Your task to perform on an android device: What is the news today? Image 0: 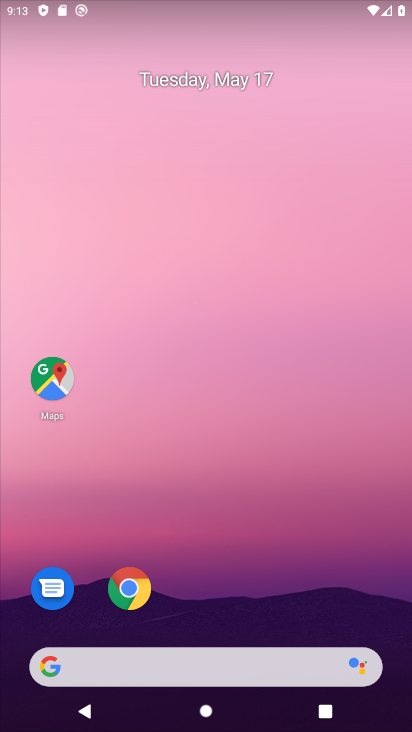
Step 0: drag from (150, 253) to (122, 28)
Your task to perform on an android device: What is the news today? Image 1: 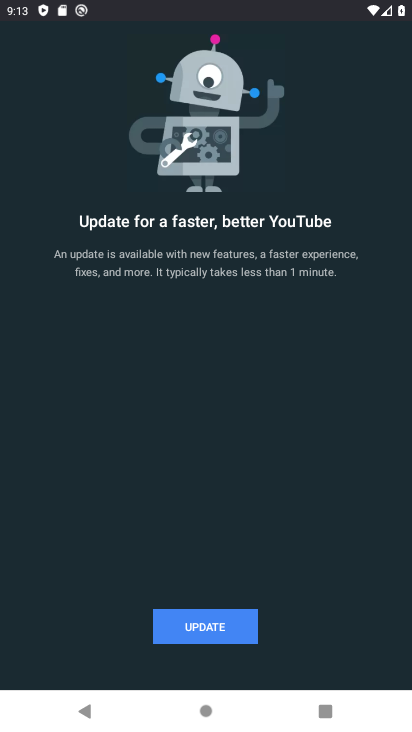
Step 1: press back button
Your task to perform on an android device: What is the news today? Image 2: 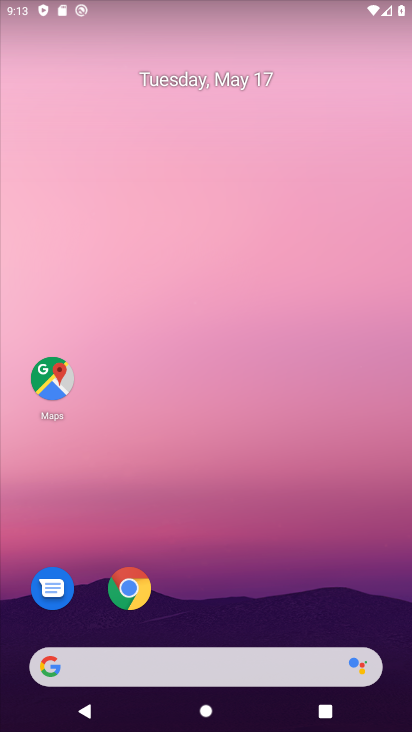
Step 2: click (232, 664)
Your task to perform on an android device: What is the news today? Image 3: 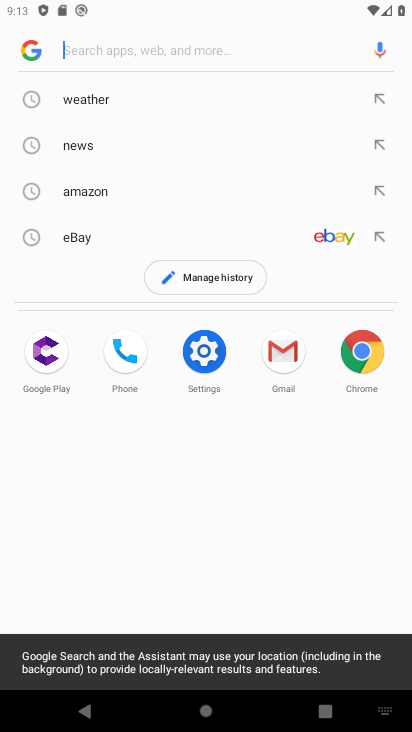
Step 3: click (85, 130)
Your task to perform on an android device: What is the news today? Image 4: 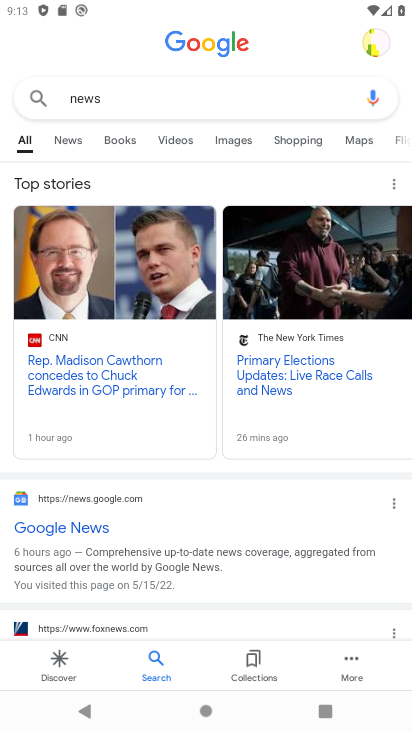
Step 4: click (69, 131)
Your task to perform on an android device: What is the news today? Image 5: 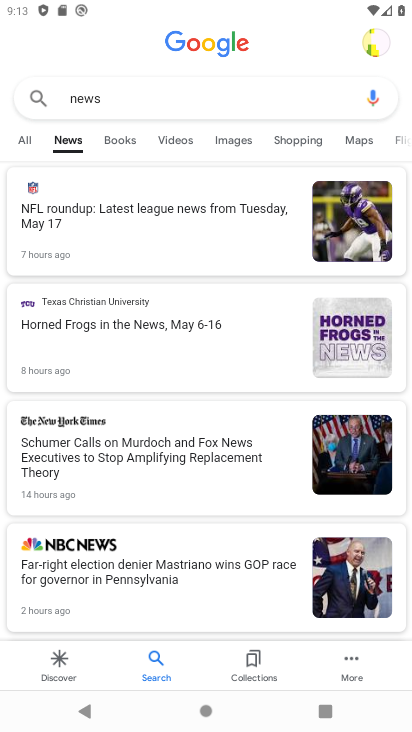
Step 5: task complete